Your task to perform on an android device: Go to display settings Image 0: 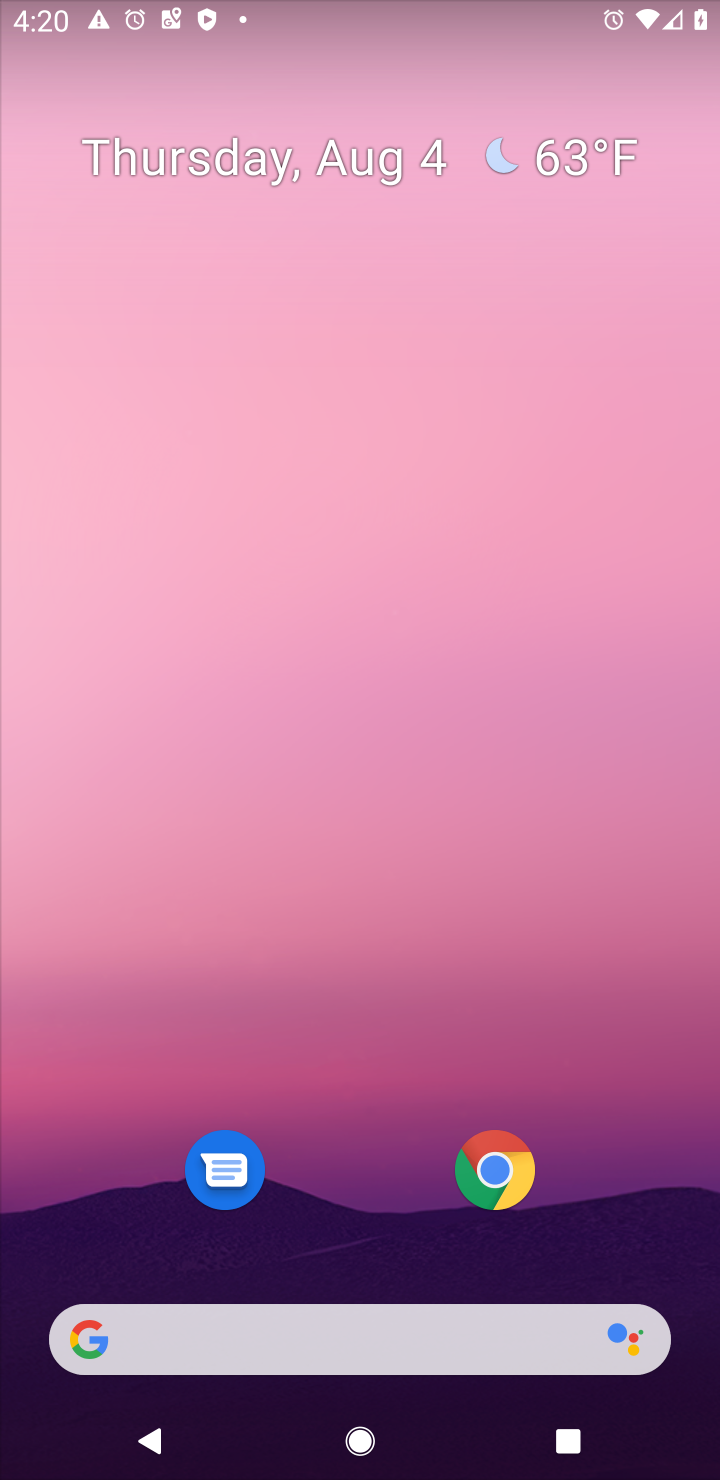
Step 0: drag from (607, 1016) to (515, 29)
Your task to perform on an android device: Go to display settings Image 1: 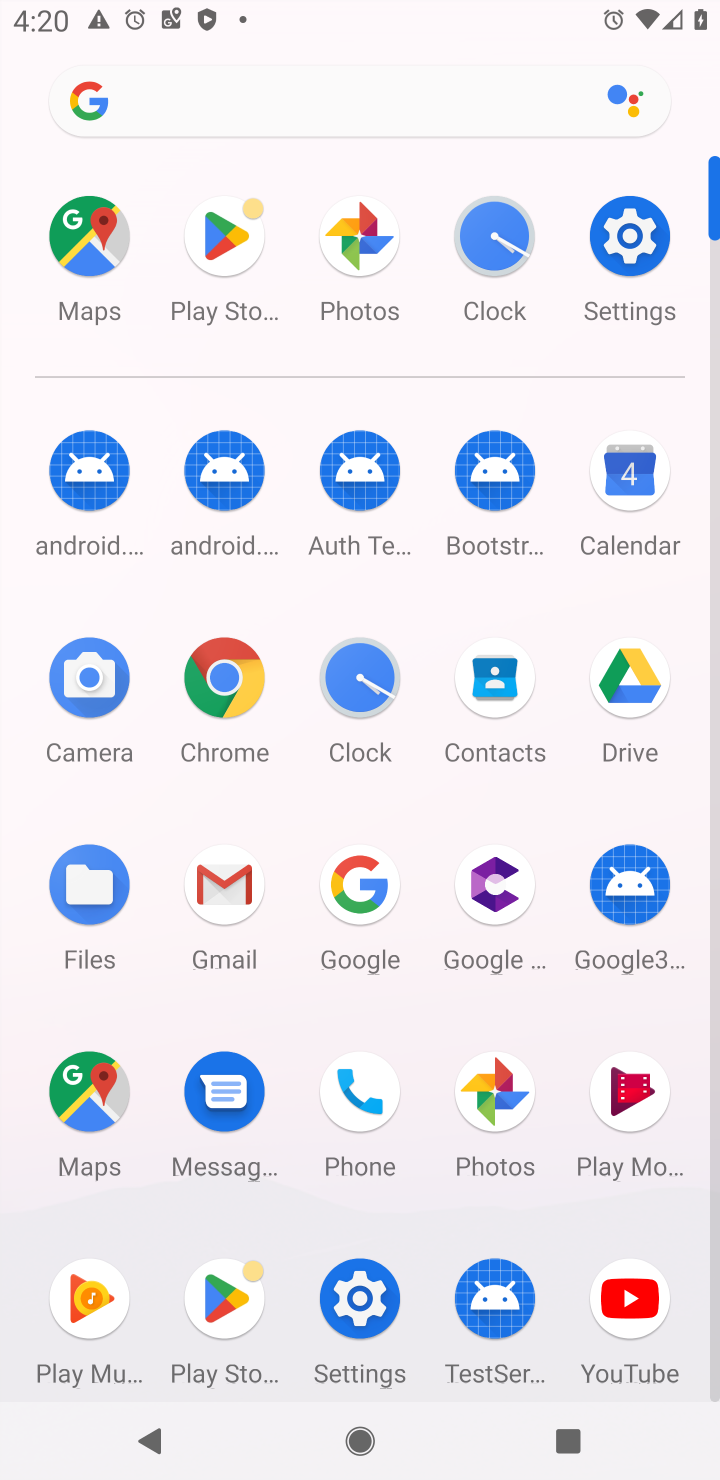
Step 1: click (358, 1304)
Your task to perform on an android device: Go to display settings Image 2: 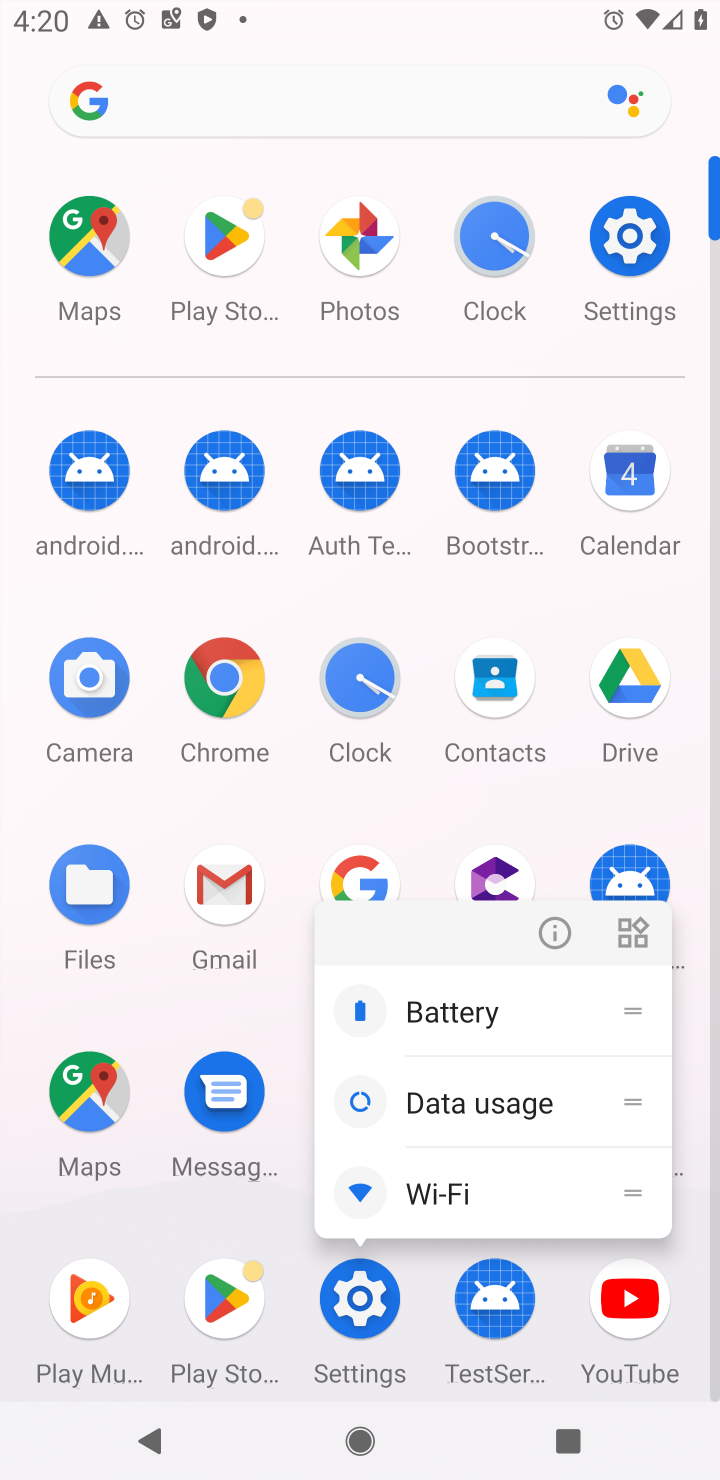
Step 2: click (359, 1301)
Your task to perform on an android device: Go to display settings Image 3: 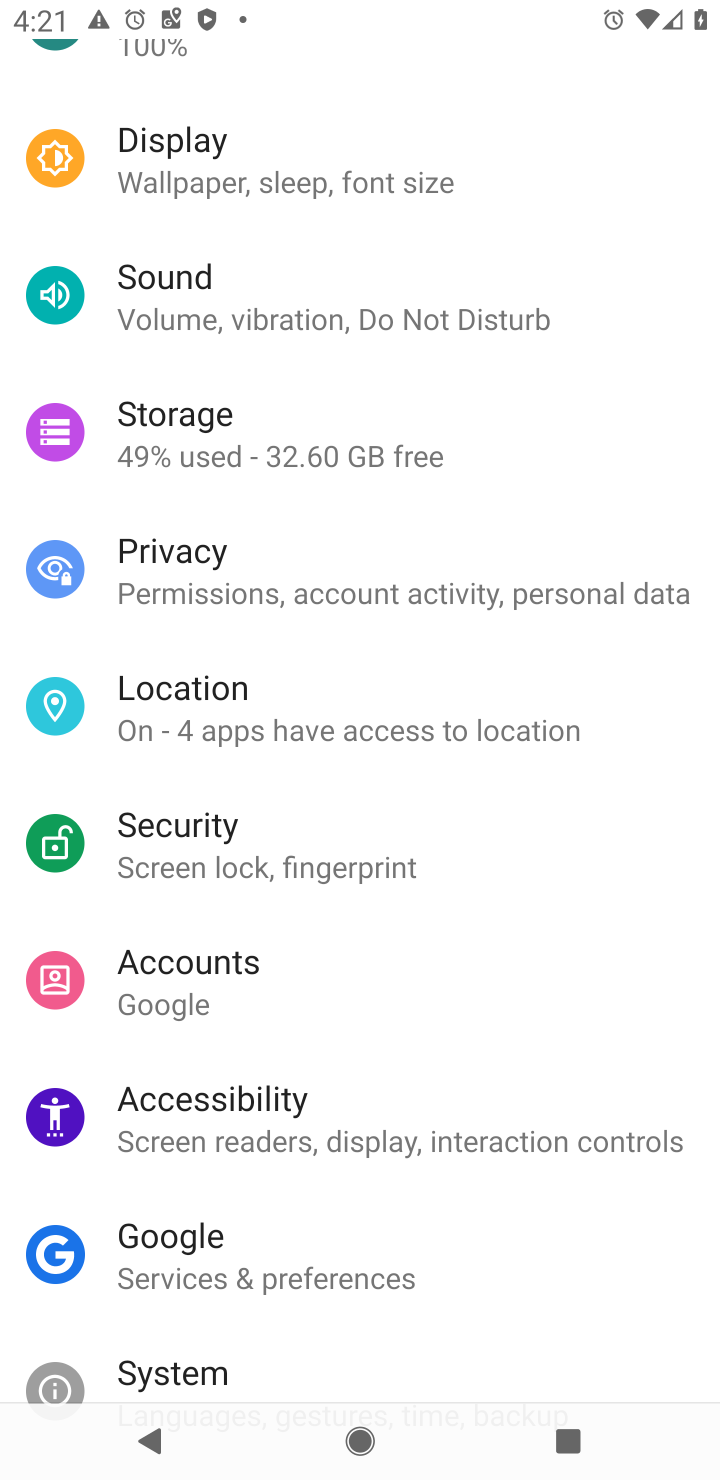
Step 3: click (187, 159)
Your task to perform on an android device: Go to display settings Image 4: 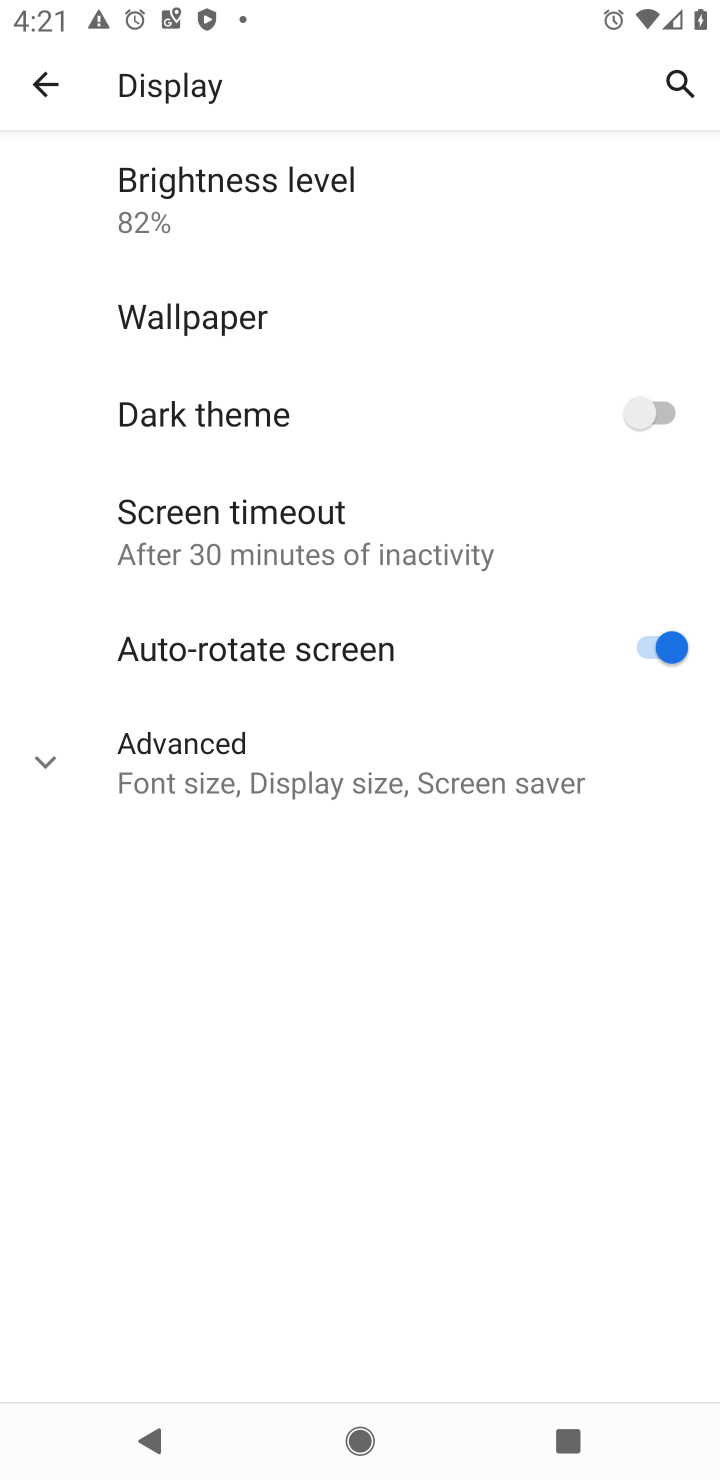
Step 4: click (49, 771)
Your task to perform on an android device: Go to display settings Image 5: 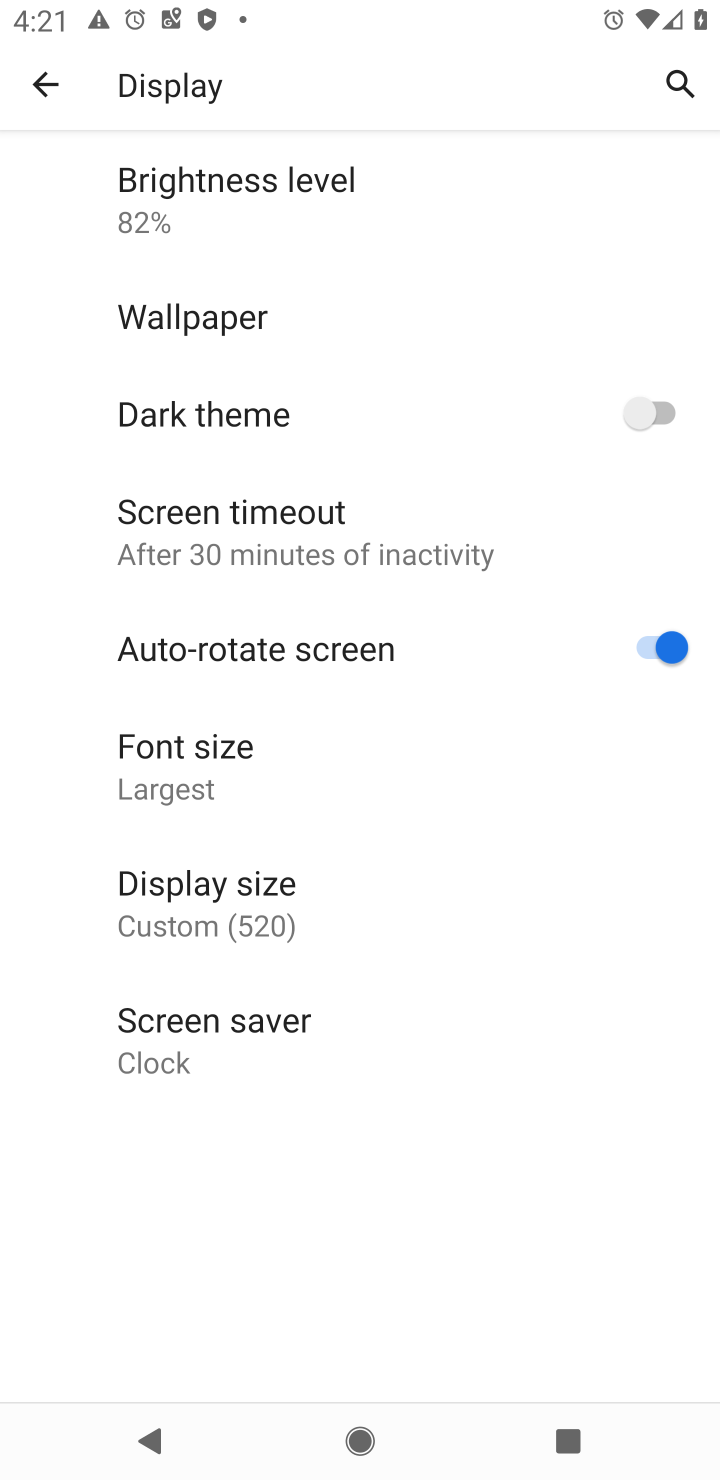
Step 5: task complete